Your task to perform on an android device: Search for Italian restaurants on Maps Image 0: 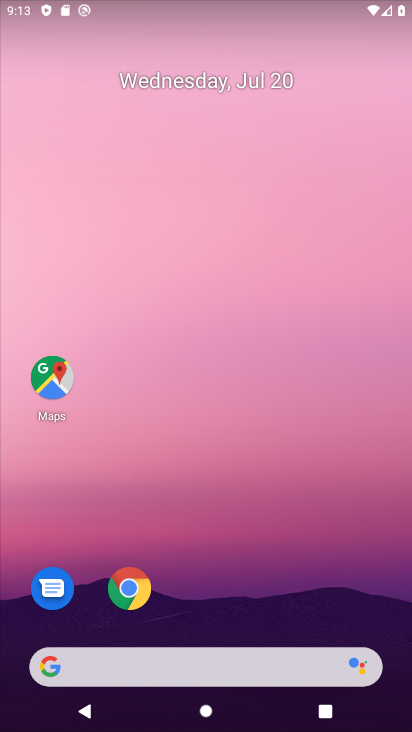
Step 0: press home button
Your task to perform on an android device: Search for Italian restaurants on Maps Image 1: 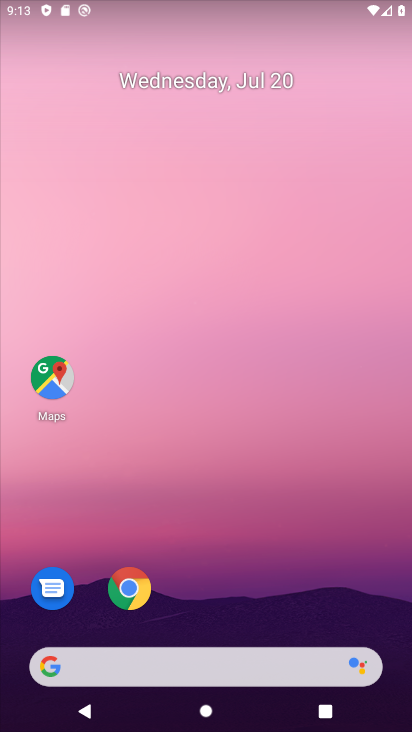
Step 1: press home button
Your task to perform on an android device: Search for Italian restaurants on Maps Image 2: 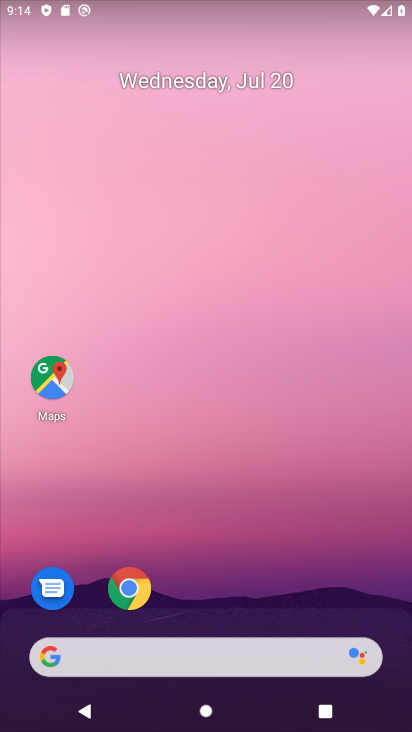
Step 2: click (45, 370)
Your task to perform on an android device: Search for Italian restaurants on Maps Image 3: 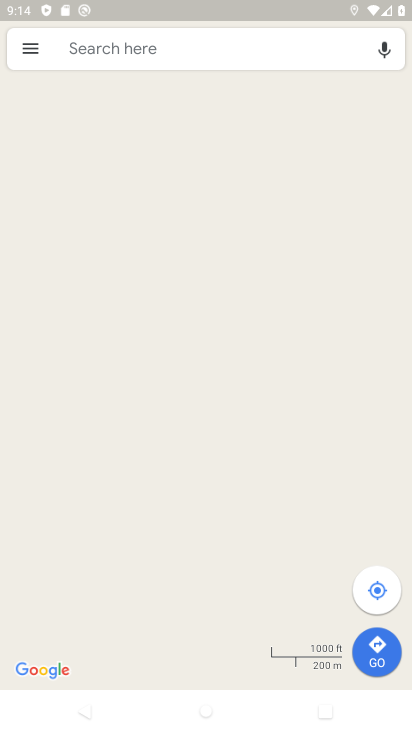
Step 3: click (169, 48)
Your task to perform on an android device: Search for Italian restaurants on Maps Image 4: 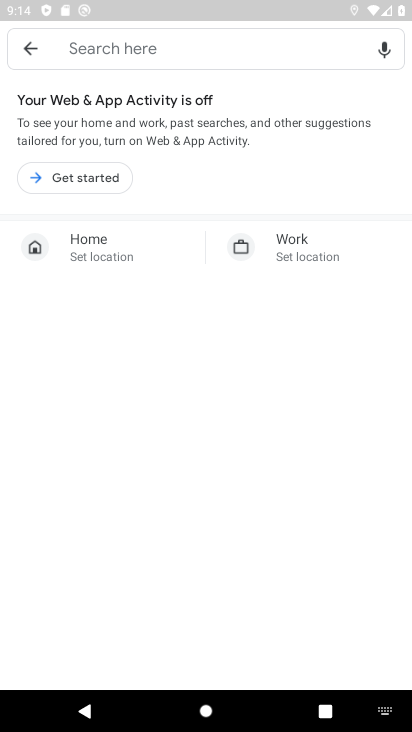
Step 4: type " Italian restaurants "
Your task to perform on an android device: Search for Italian restaurants on Maps Image 5: 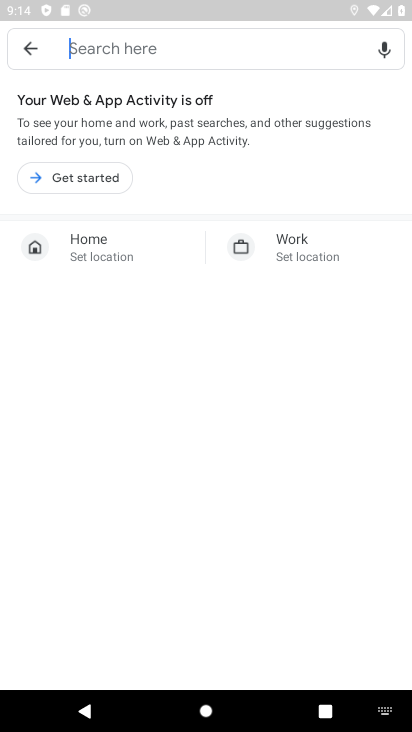
Step 5: click (119, 51)
Your task to perform on an android device: Search for Italian restaurants on Maps Image 6: 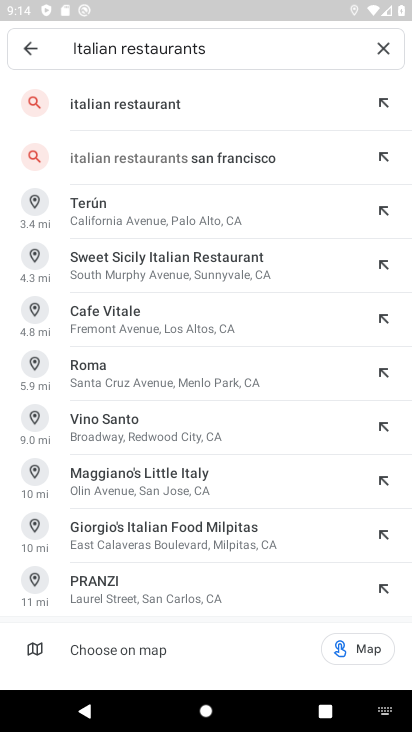
Step 6: press enter
Your task to perform on an android device: Search for Italian restaurants on Maps Image 7: 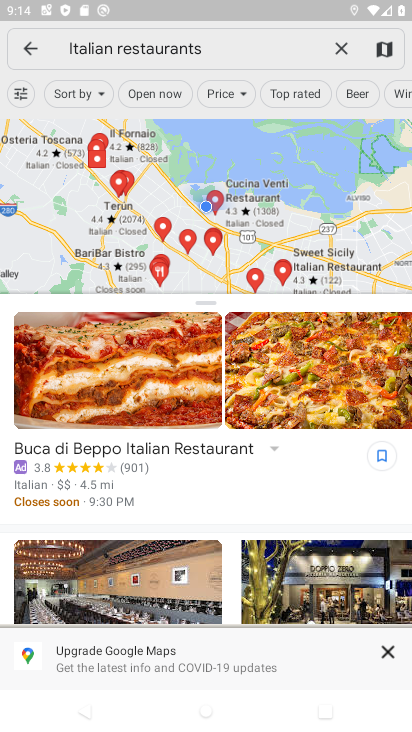
Step 7: task complete